Your task to perform on an android device: toggle improve location accuracy Image 0: 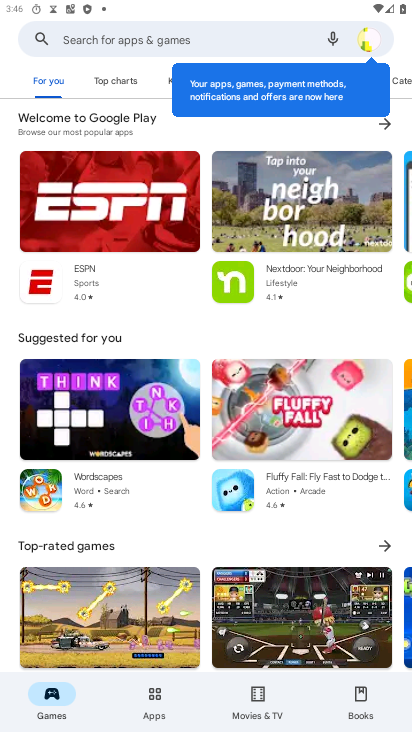
Step 0: press home button
Your task to perform on an android device: toggle improve location accuracy Image 1: 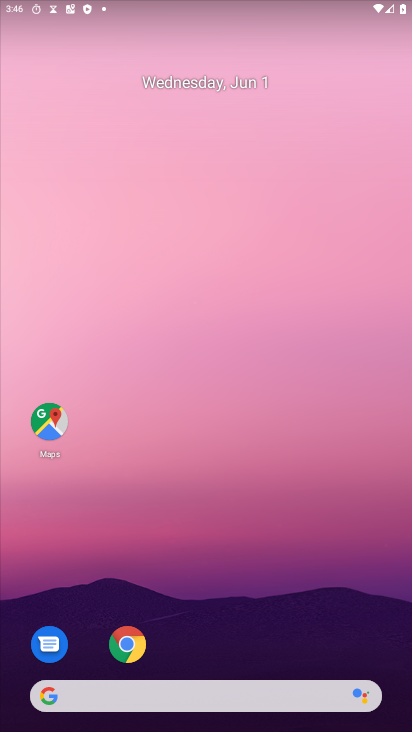
Step 1: drag from (291, 618) to (298, 193)
Your task to perform on an android device: toggle improve location accuracy Image 2: 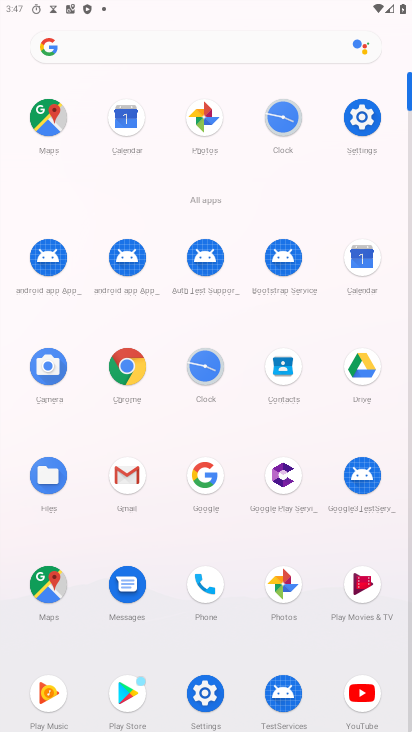
Step 2: click (363, 120)
Your task to perform on an android device: toggle improve location accuracy Image 3: 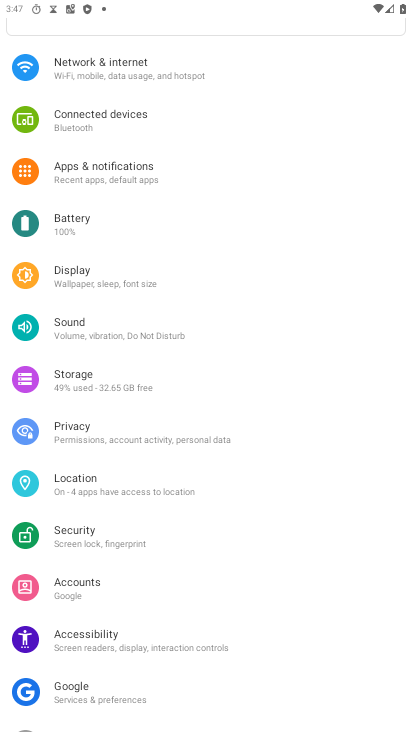
Step 3: click (150, 479)
Your task to perform on an android device: toggle improve location accuracy Image 4: 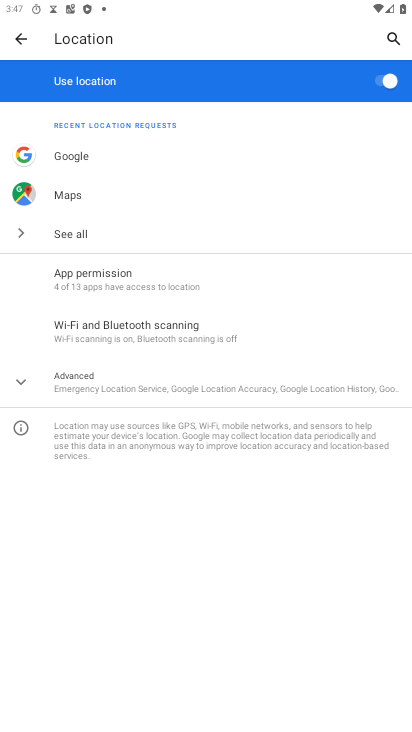
Step 4: click (23, 383)
Your task to perform on an android device: toggle improve location accuracy Image 5: 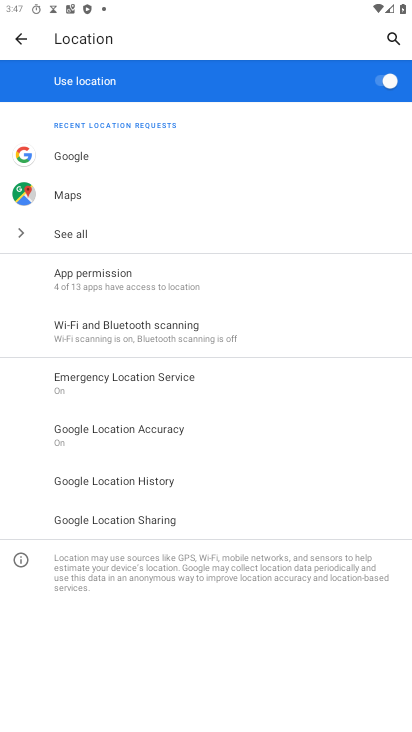
Step 5: click (130, 430)
Your task to perform on an android device: toggle improve location accuracy Image 6: 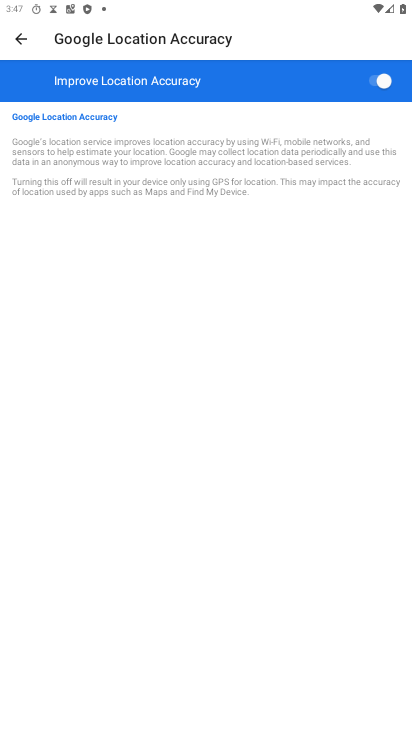
Step 6: click (379, 81)
Your task to perform on an android device: toggle improve location accuracy Image 7: 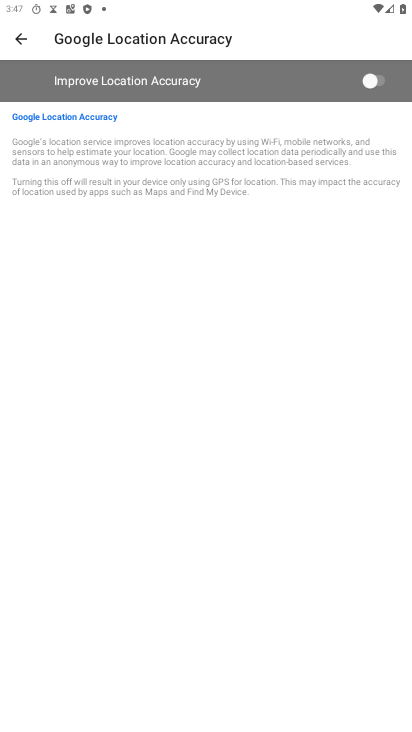
Step 7: task complete